Your task to perform on an android device: Go to sound settings Image 0: 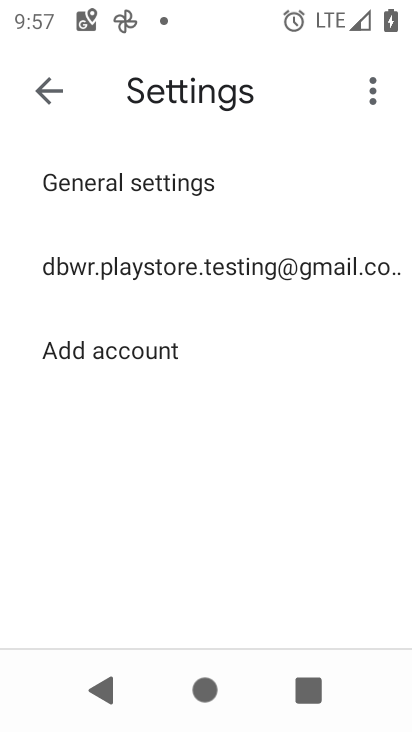
Step 0: press home button
Your task to perform on an android device: Go to sound settings Image 1: 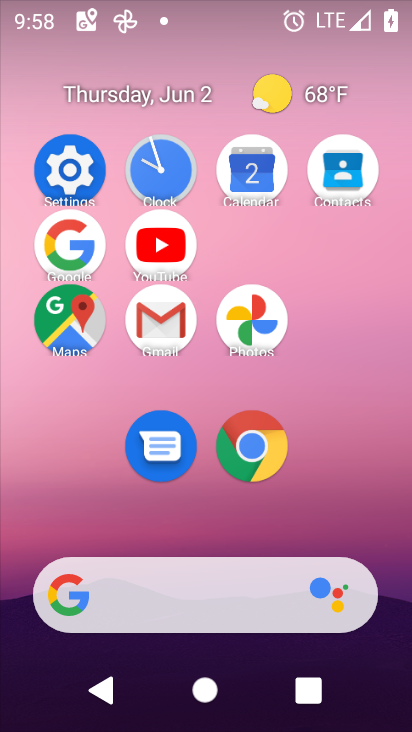
Step 1: click (88, 173)
Your task to perform on an android device: Go to sound settings Image 2: 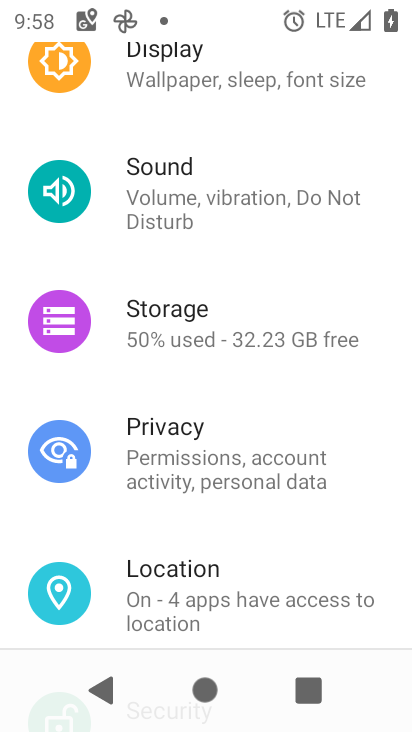
Step 2: click (200, 165)
Your task to perform on an android device: Go to sound settings Image 3: 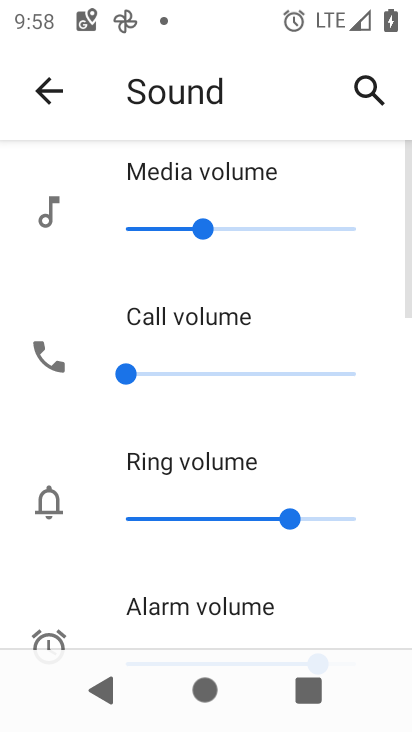
Step 3: task complete